Your task to perform on an android device: open a new tab in the chrome app Image 0: 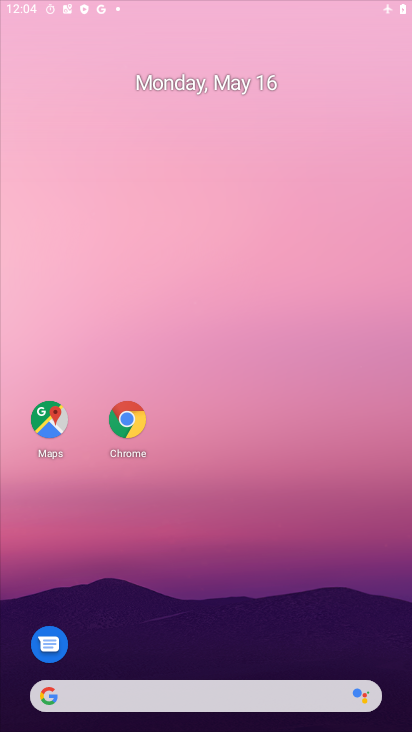
Step 0: click (175, 261)
Your task to perform on an android device: open a new tab in the chrome app Image 1: 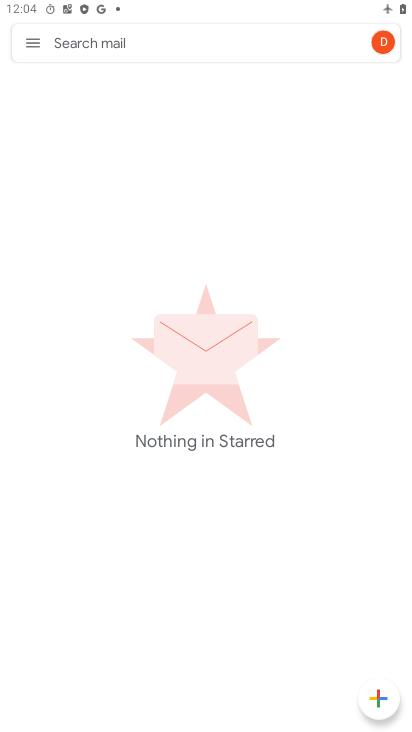
Step 1: press home button
Your task to perform on an android device: open a new tab in the chrome app Image 2: 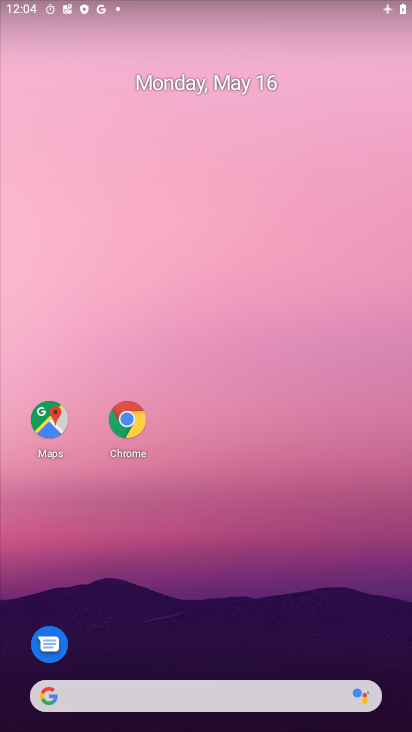
Step 2: drag from (239, 652) to (280, 38)
Your task to perform on an android device: open a new tab in the chrome app Image 3: 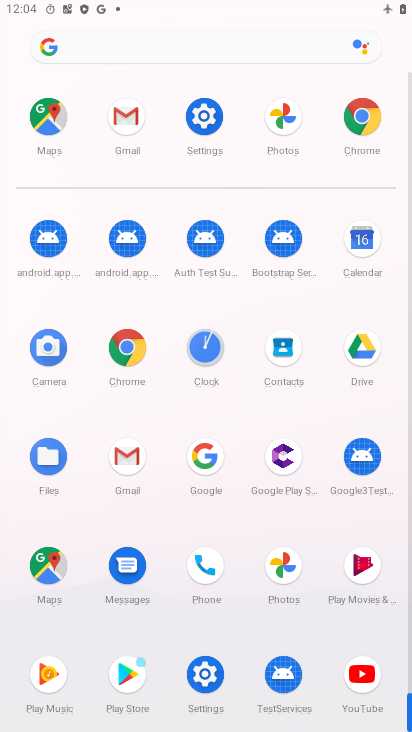
Step 3: click (129, 346)
Your task to perform on an android device: open a new tab in the chrome app Image 4: 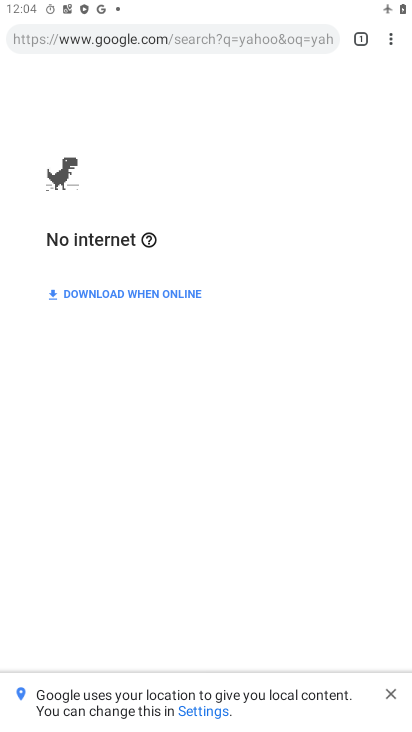
Step 4: click (288, 469)
Your task to perform on an android device: open a new tab in the chrome app Image 5: 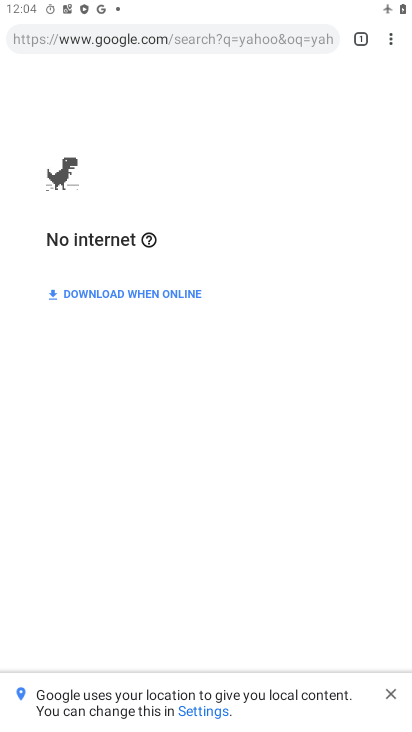
Step 5: press home button
Your task to perform on an android device: open a new tab in the chrome app Image 6: 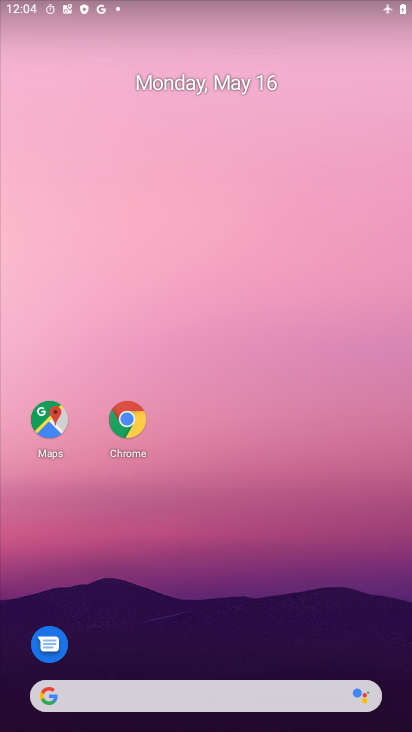
Step 6: drag from (188, 606) to (178, 92)
Your task to perform on an android device: open a new tab in the chrome app Image 7: 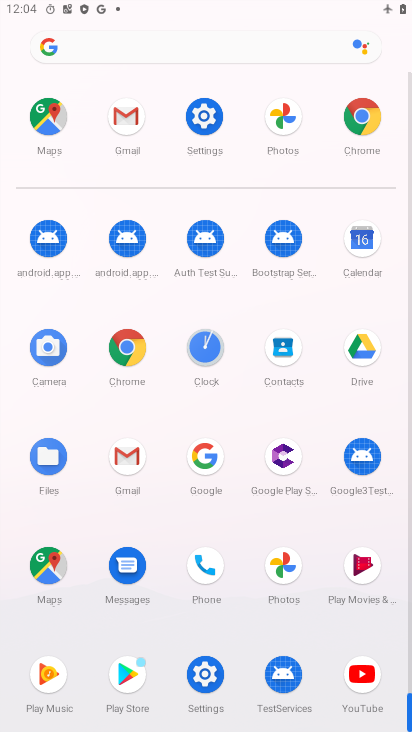
Step 7: click (363, 118)
Your task to perform on an android device: open a new tab in the chrome app Image 8: 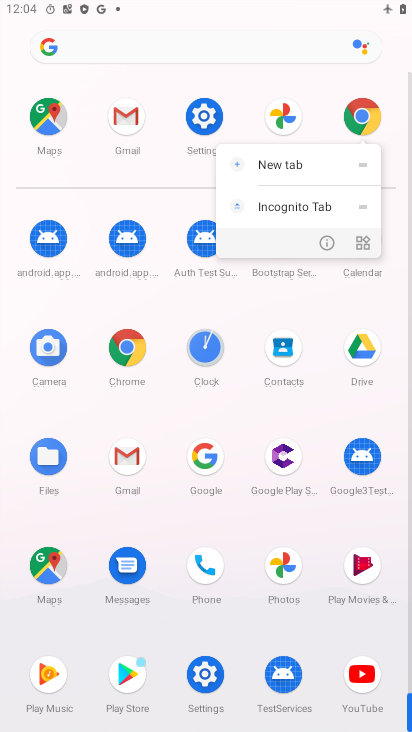
Step 8: click (286, 161)
Your task to perform on an android device: open a new tab in the chrome app Image 9: 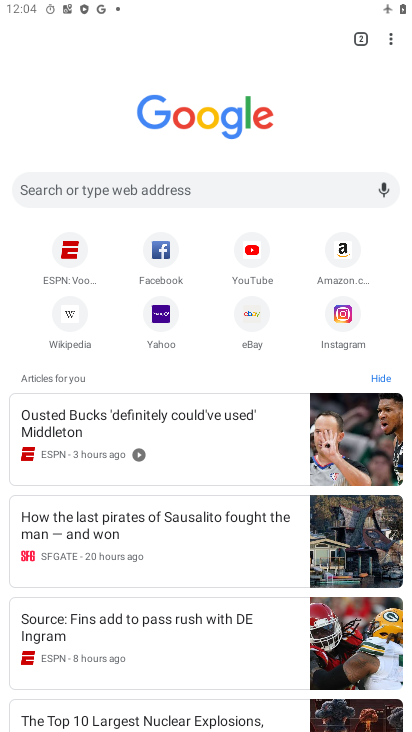
Step 9: task complete